Your task to perform on an android device: Open internet settings Image 0: 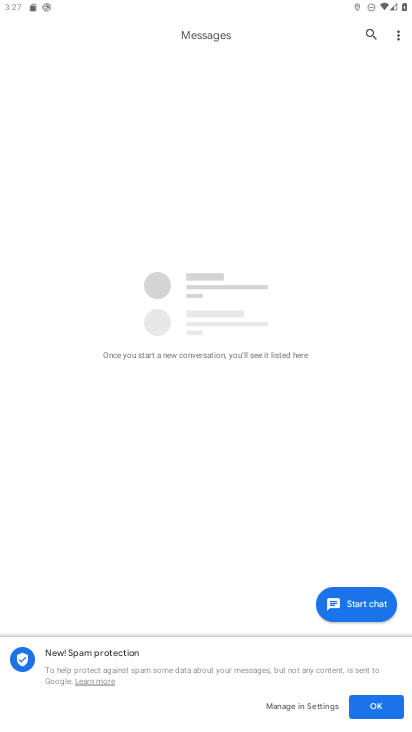
Step 0: press home button
Your task to perform on an android device: Open internet settings Image 1: 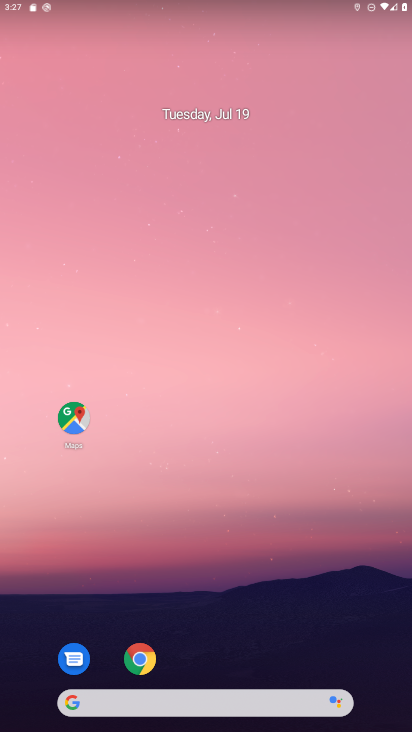
Step 1: drag from (258, 668) to (294, 84)
Your task to perform on an android device: Open internet settings Image 2: 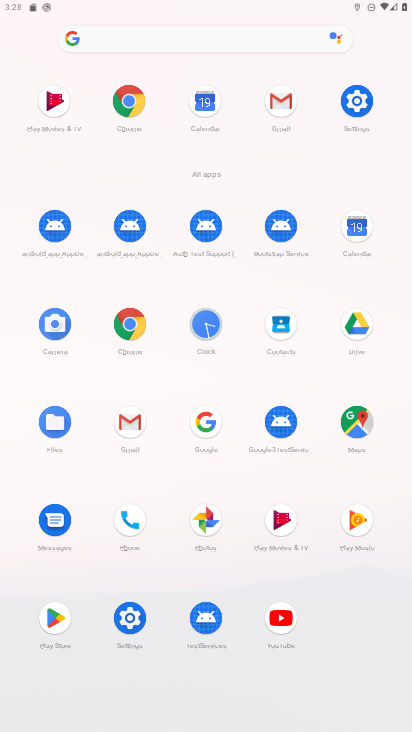
Step 2: click (351, 116)
Your task to perform on an android device: Open internet settings Image 3: 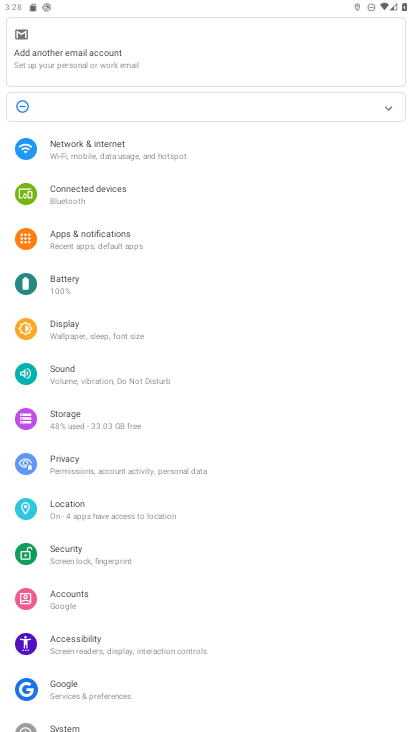
Step 3: click (126, 154)
Your task to perform on an android device: Open internet settings Image 4: 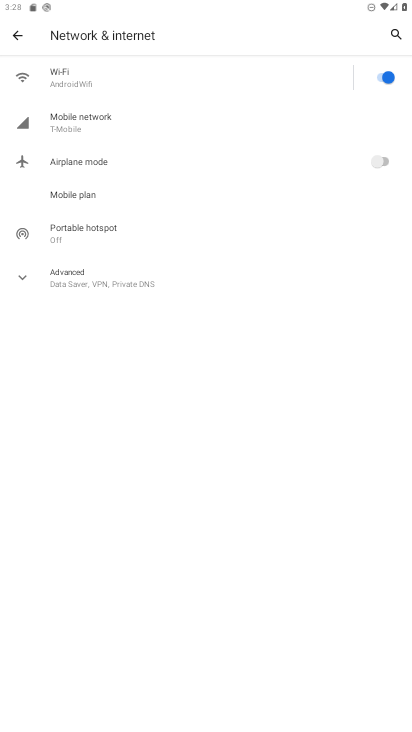
Step 4: click (67, 124)
Your task to perform on an android device: Open internet settings Image 5: 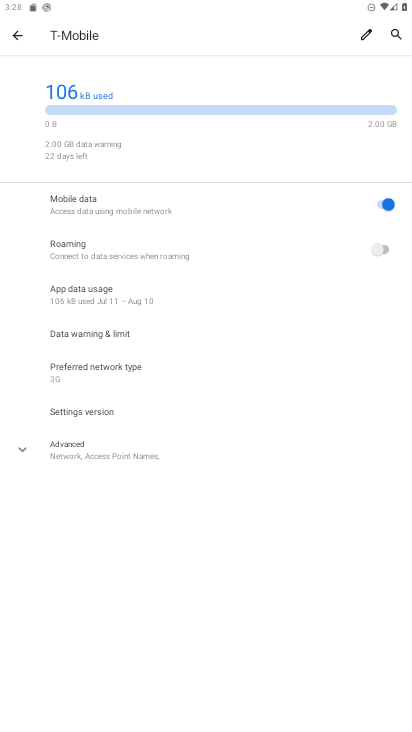
Step 5: task complete